Your task to perform on an android device: turn off javascript in the chrome app Image 0: 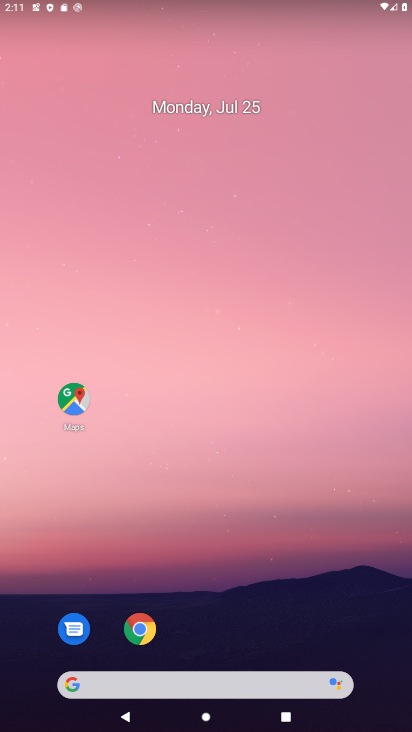
Step 0: drag from (176, 590) to (240, 118)
Your task to perform on an android device: turn off javascript in the chrome app Image 1: 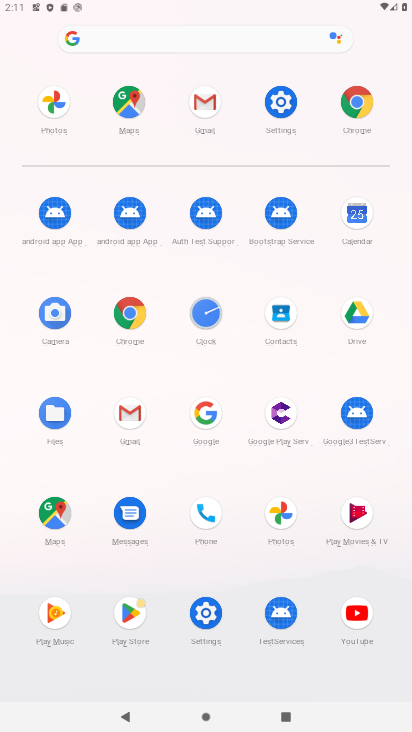
Step 1: click (122, 309)
Your task to perform on an android device: turn off javascript in the chrome app Image 2: 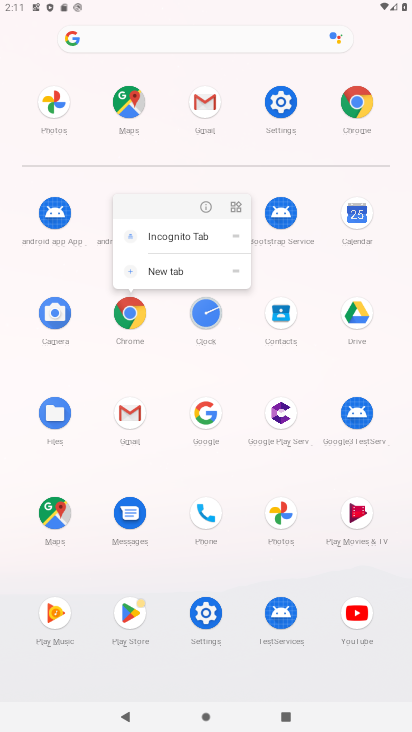
Step 2: click (201, 203)
Your task to perform on an android device: turn off javascript in the chrome app Image 3: 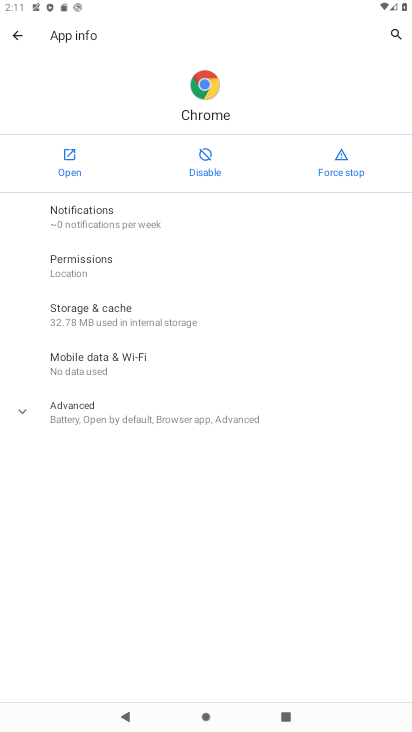
Step 3: click (67, 158)
Your task to perform on an android device: turn off javascript in the chrome app Image 4: 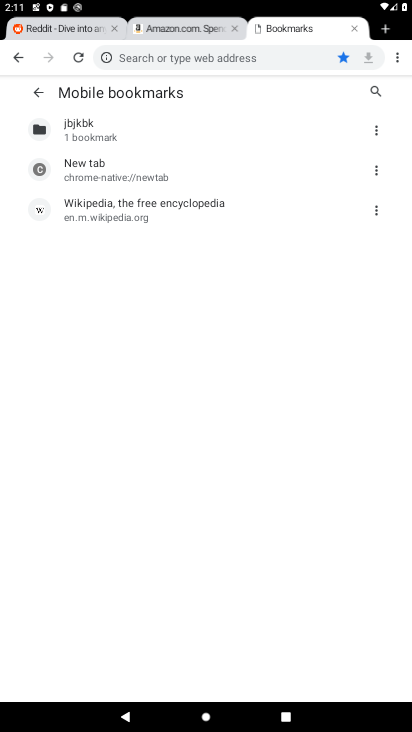
Step 4: drag from (394, 59) to (288, 302)
Your task to perform on an android device: turn off javascript in the chrome app Image 5: 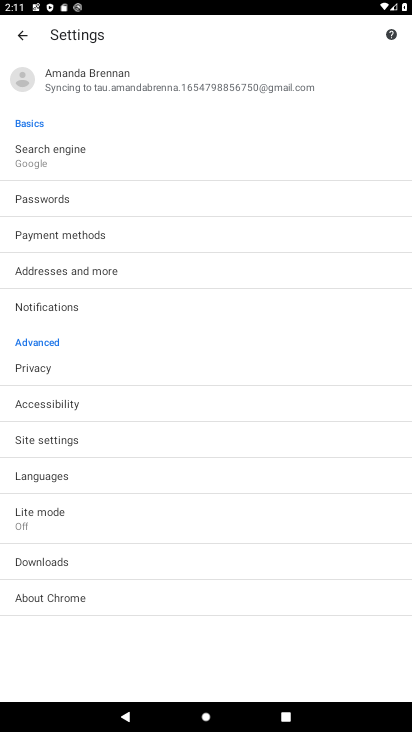
Step 5: click (91, 447)
Your task to perform on an android device: turn off javascript in the chrome app Image 6: 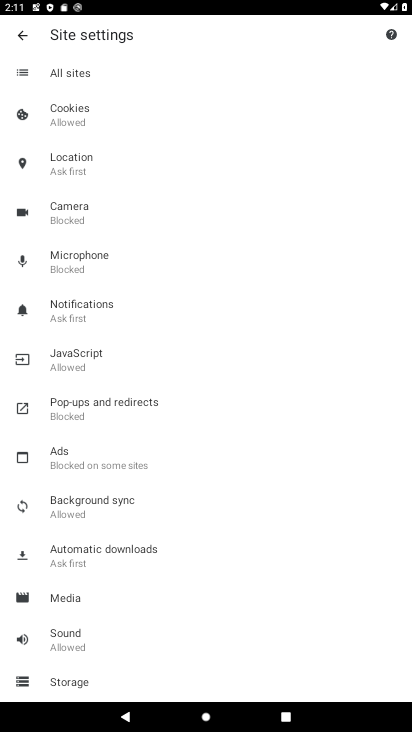
Step 6: click (86, 348)
Your task to perform on an android device: turn off javascript in the chrome app Image 7: 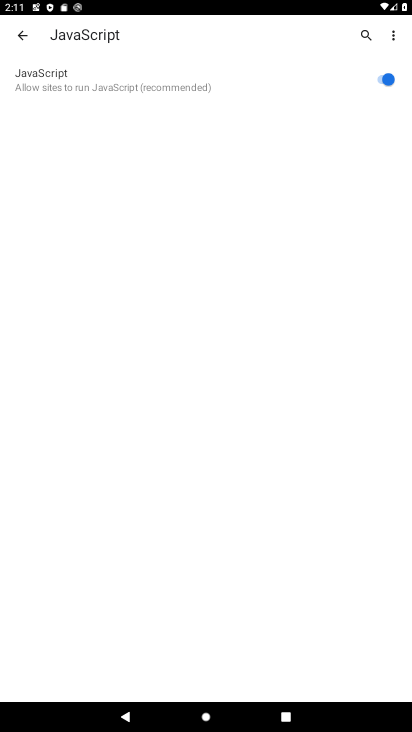
Step 7: click (383, 68)
Your task to perform on an android device: turn off javascript in the chrome app Image 8: 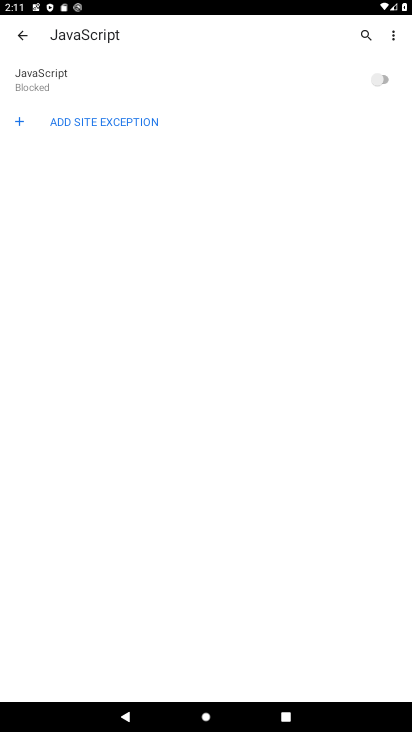
Step 8: task complete